Your task to perform on an android device: See recent photos Image 0: 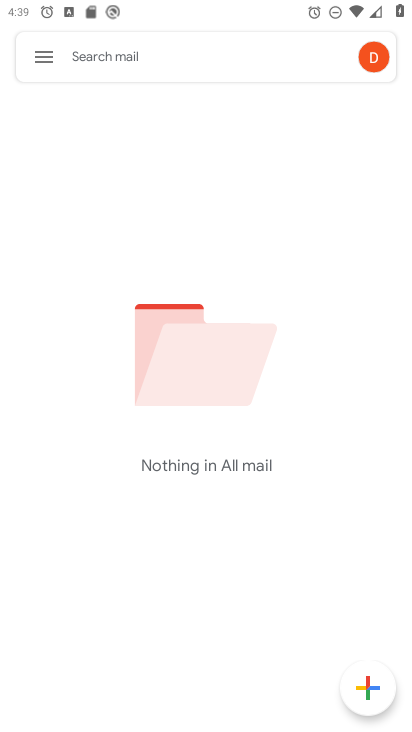
Step 0: press home button
Your task to perform on an android device: See recent photos Image 1: 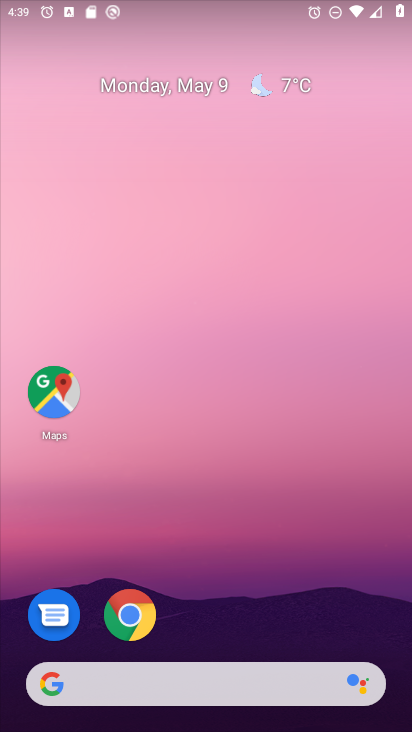
Step 1: drag from (393, 660) to (276, 73)
Your task to perform on an android device: See recent photos Image 2: 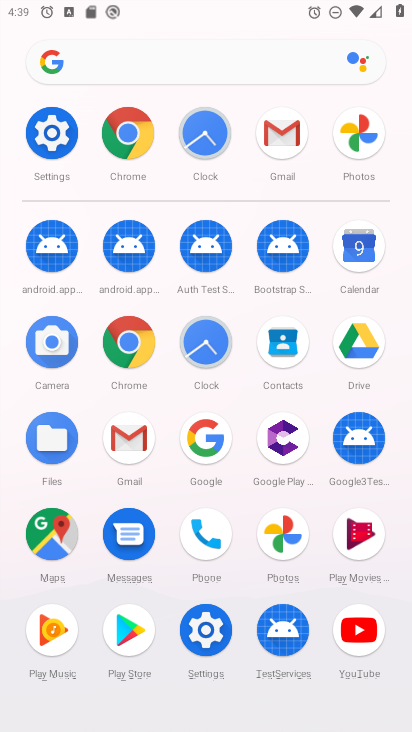
Step 2: click (282, 533)
Your task to perform on an android device: See recent photos Image 3: 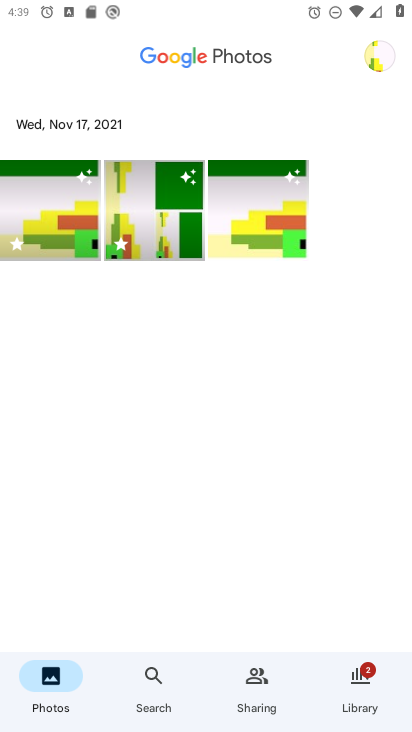
Step 3: task complete